Your task to perform on an android device: turn on airplane mode Image 0: 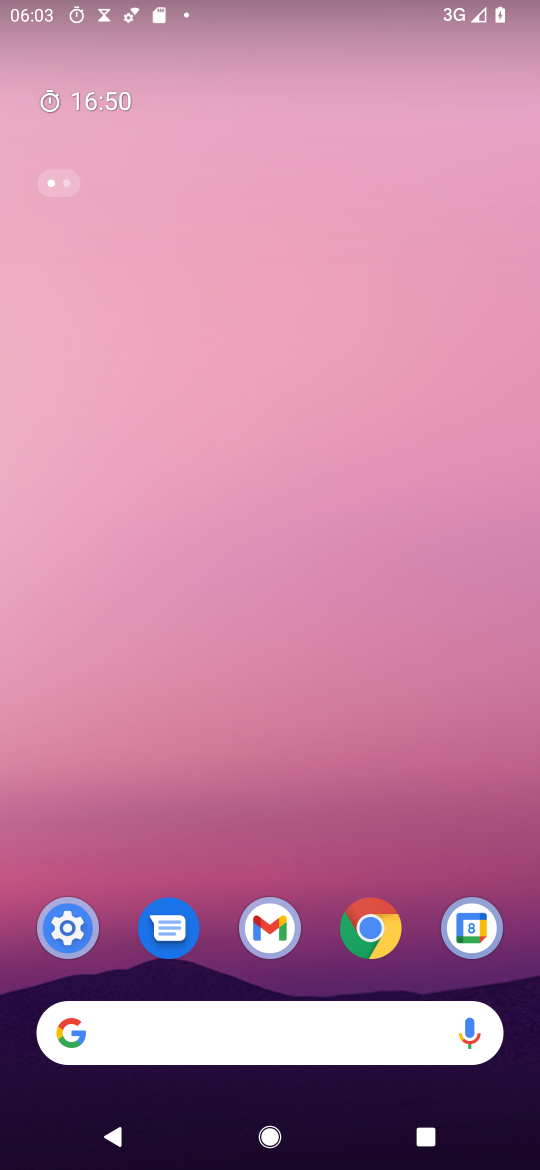
Step 0: drag from (250, 917) to (360, 9)
Your task to perform on an android device: turn on airplane mode Image 1: 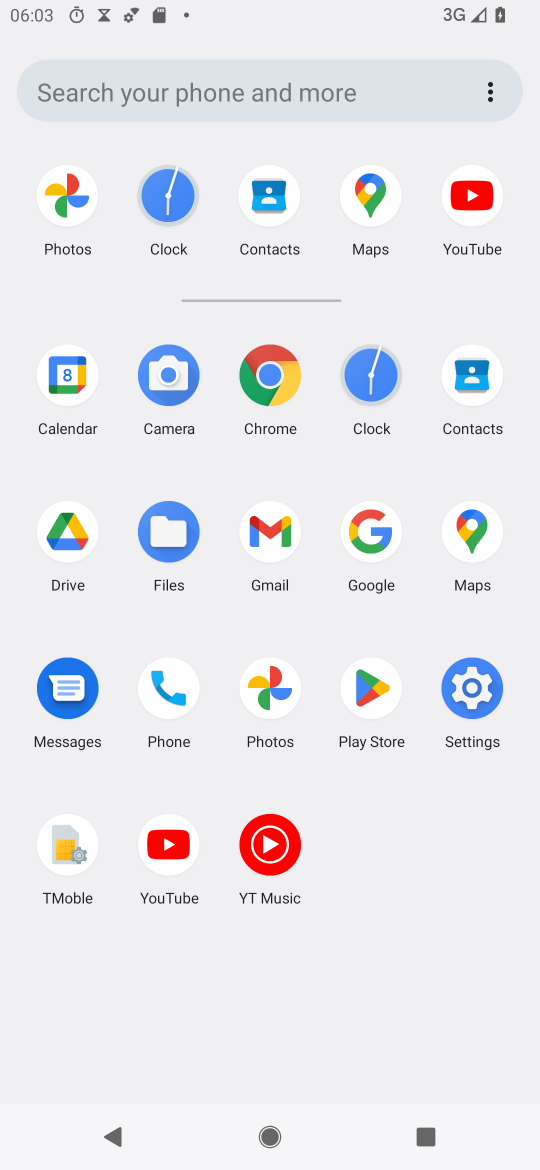
Step 1: click (485, 689)
Your task to perform on an android device: turn on airplane mode Image 2: 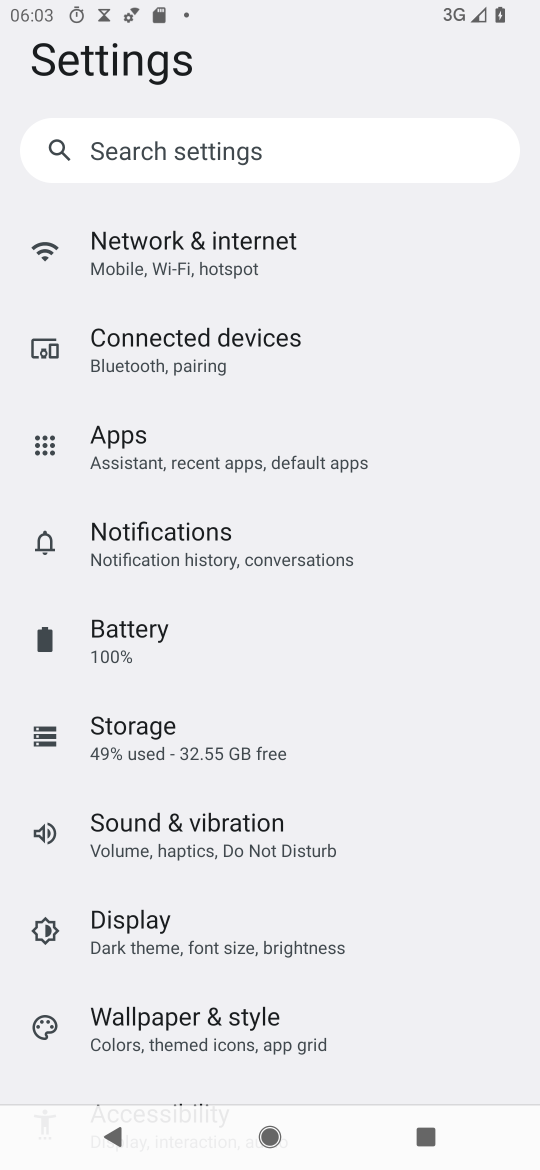
Step 2: click (218, 250)
Your task to perform on an android device: turn on airplane mode Image 3: 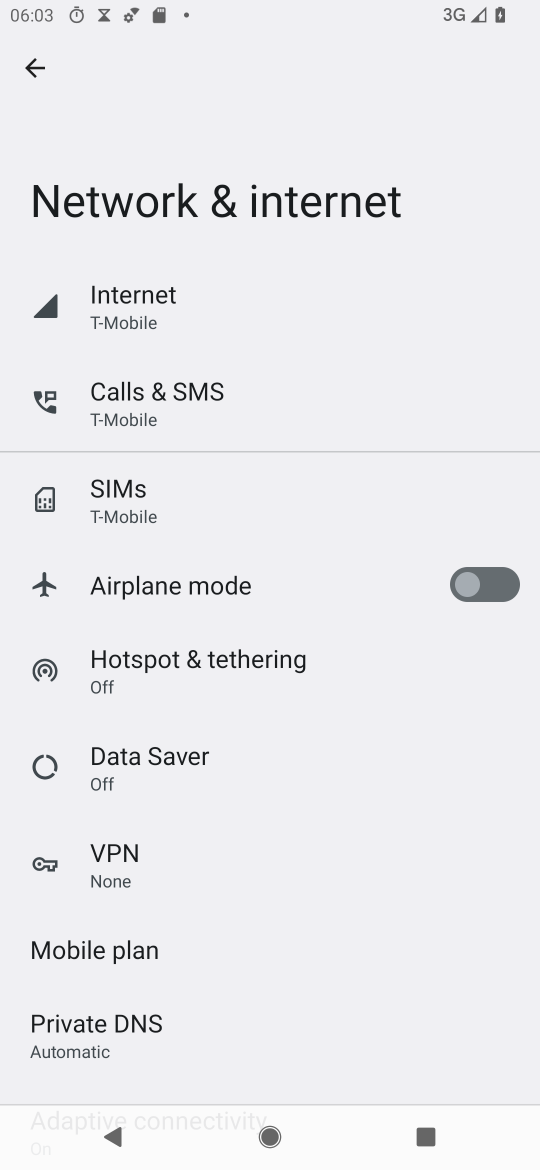
Step 3: click (513, 581)
Your task to perform on an android device: turn on airplane mode Image 4: 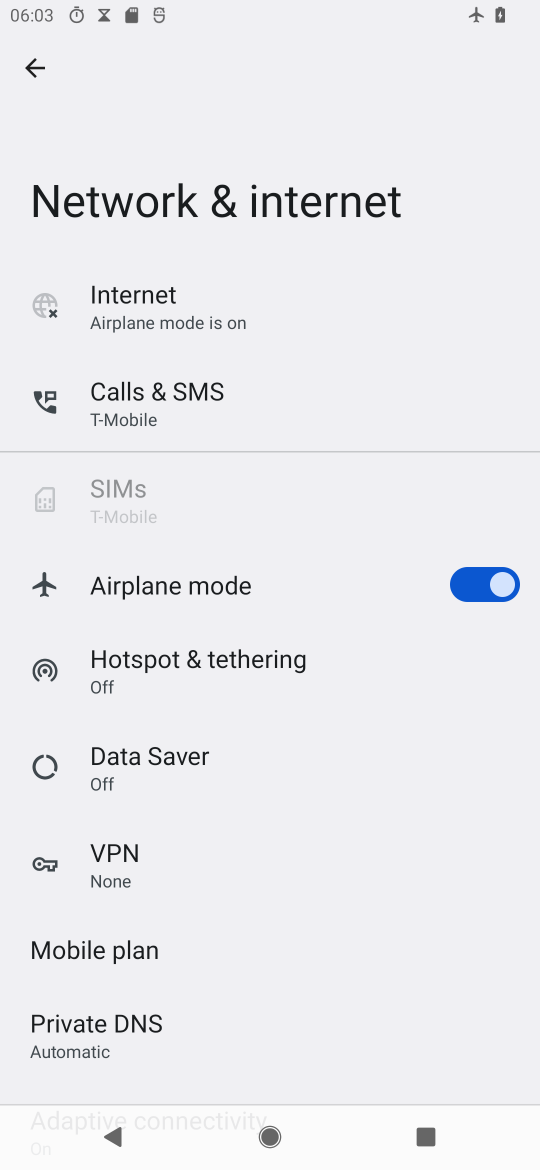
Step 4: task complete